Your task to perform on an android device: turn on showing notifications on the lock screen Image 0: 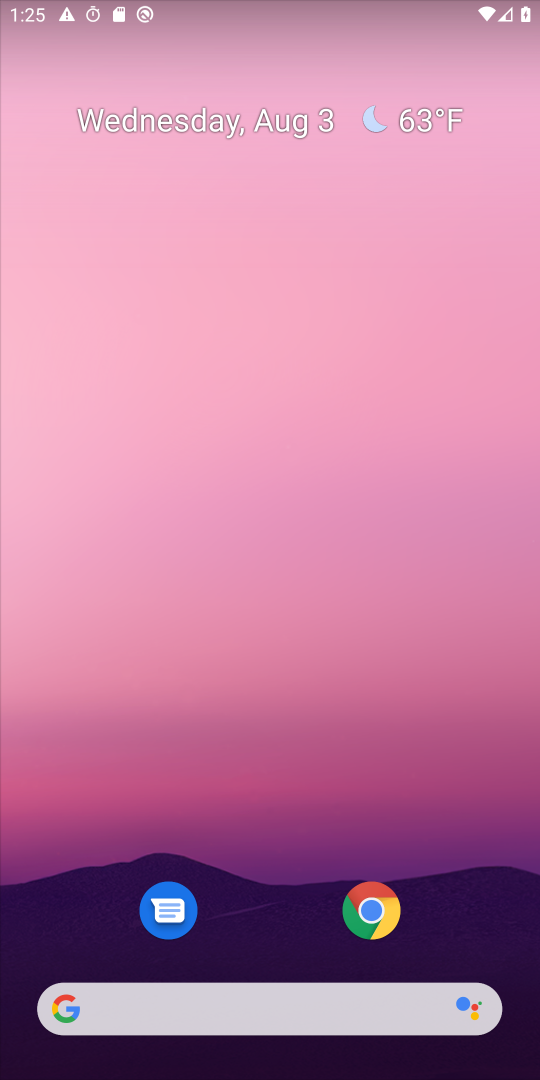
Step 0: drag from (245, 492) to (350, 17)
Your task to perform on an android device: turn on showing notifications on the lock screen Image 1: 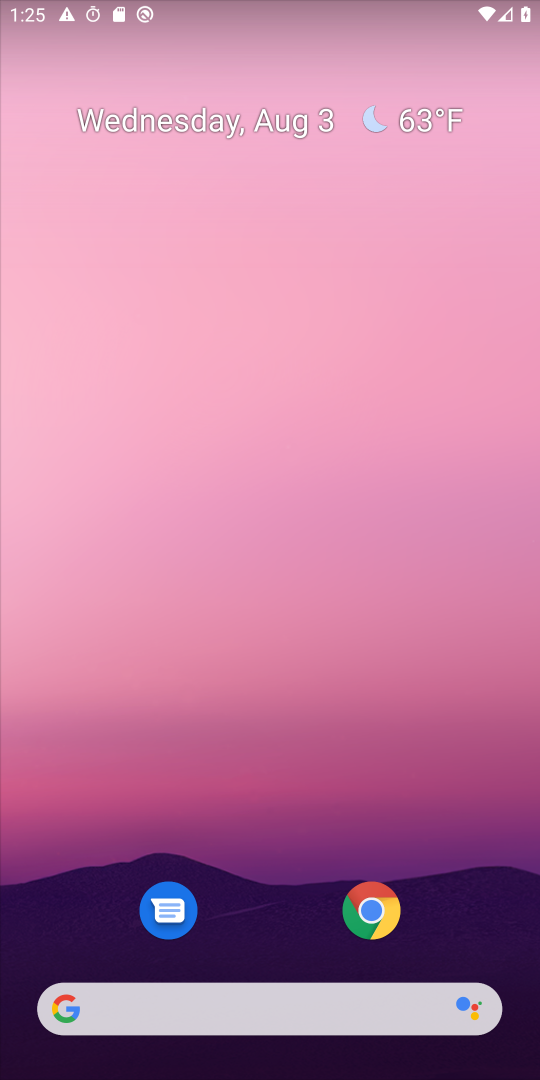
Step 1: drag from (306, 632) to (414, 1)
Your task to perform on an android device: turn on showing notifications on the lock screen Image 2: 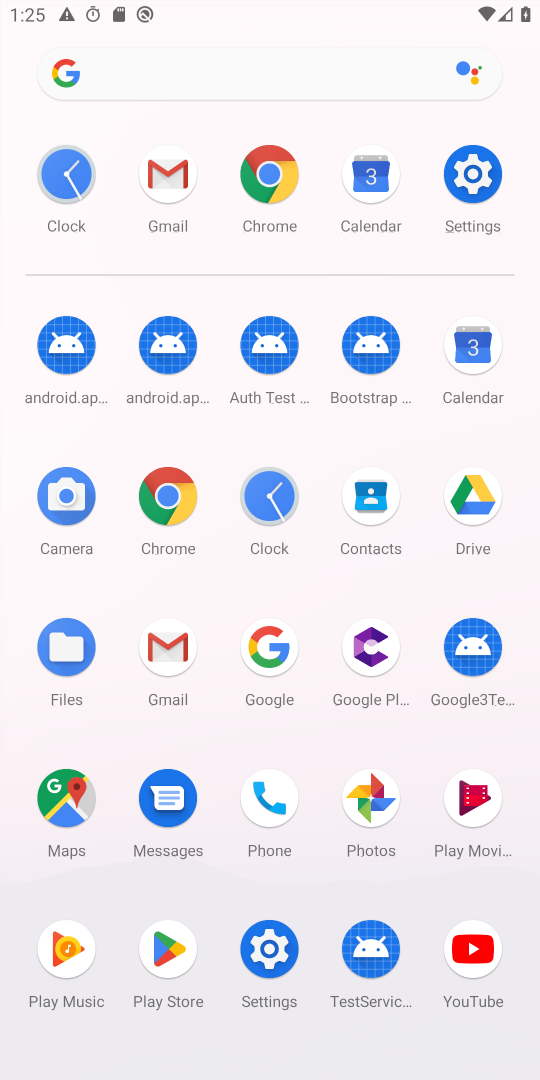
Step 2: click (472, 165)
Your task to perform on an android device: turn on showing notifications on the lock screen Image 3: 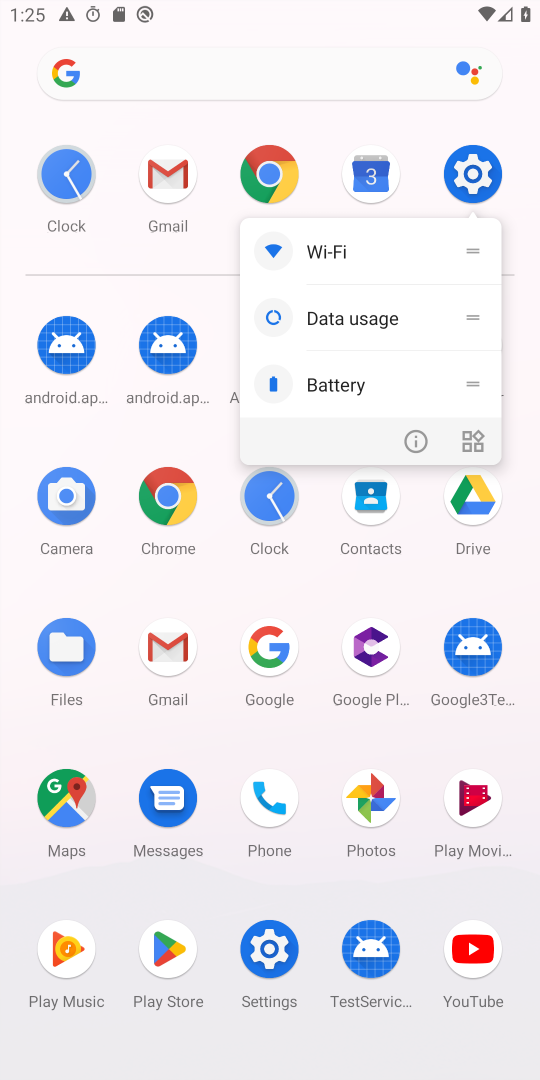
Step 3: click (474, 179)
Your task to perform on an android device: turn on showing notifications on the lock screen Image 4: 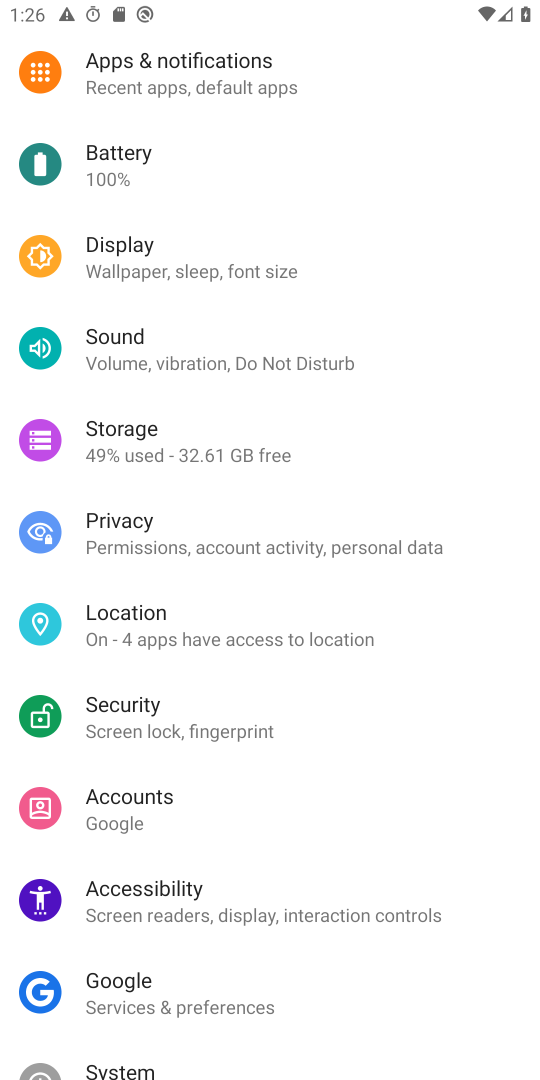
Step 4: click (218, 81)
Your task to perform on an android device: turn on showing notifications on the lock screen Image 5: 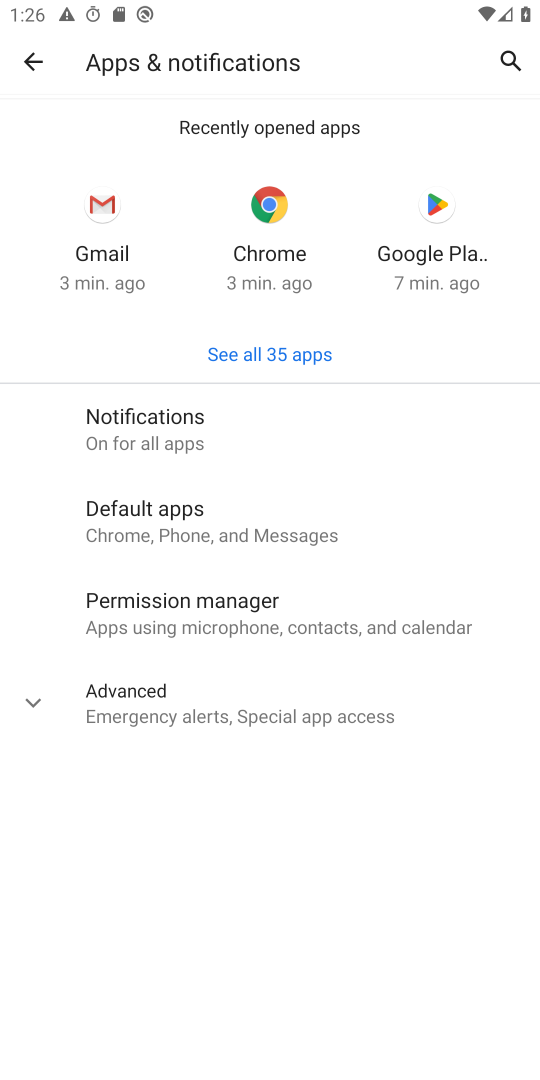
Step 5: click (226, 434)
Your task to perform on an android device: turn on showing notifications on the lock screen Image 6: 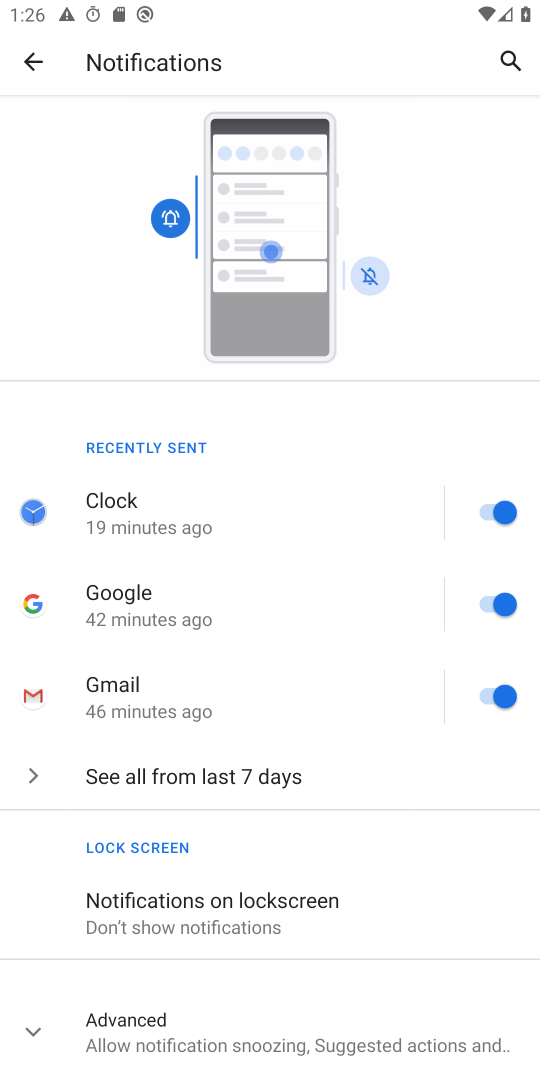
Step 6: click (222, 888)
Your task to perform on an android device: turn on showing notifications on the lock screen Image 7: 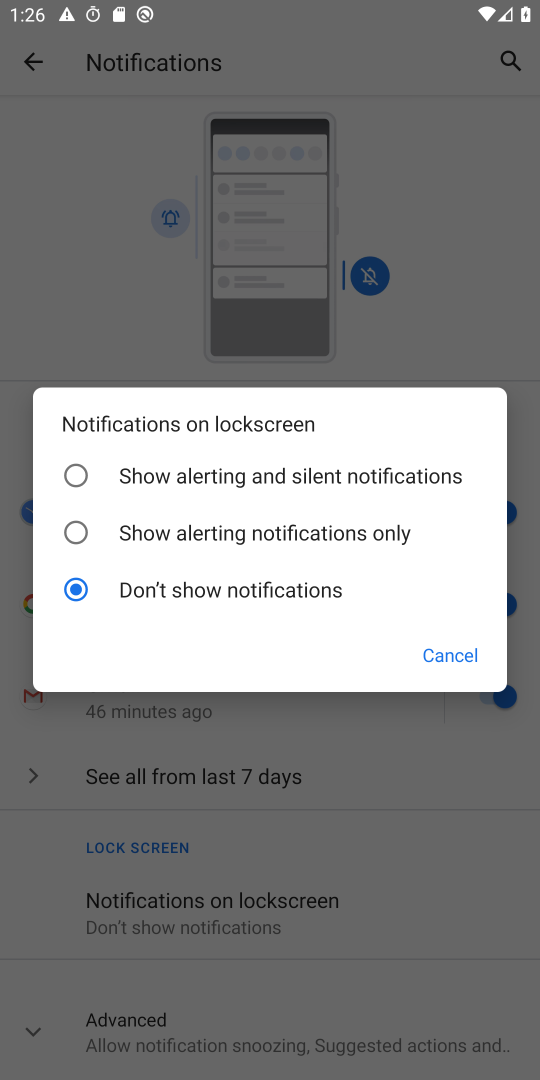
Step 7: click (73, 478)
Your task to perform on an android device: turn on showing notifications on the lock screen Image 8: 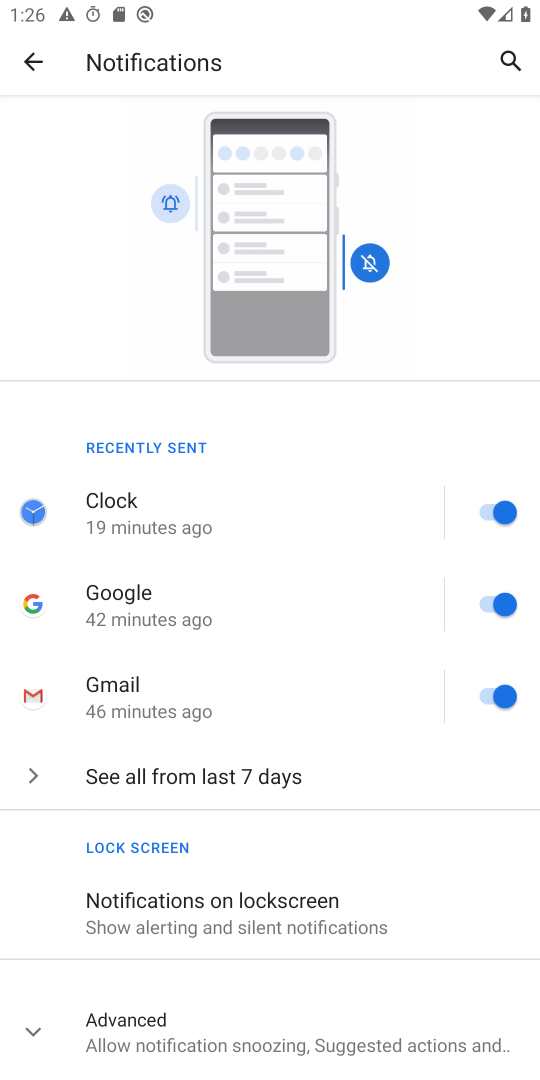
Step 8: task complete